Your task to perform on an android device: choose inbox layout in the gmail app Image 0: 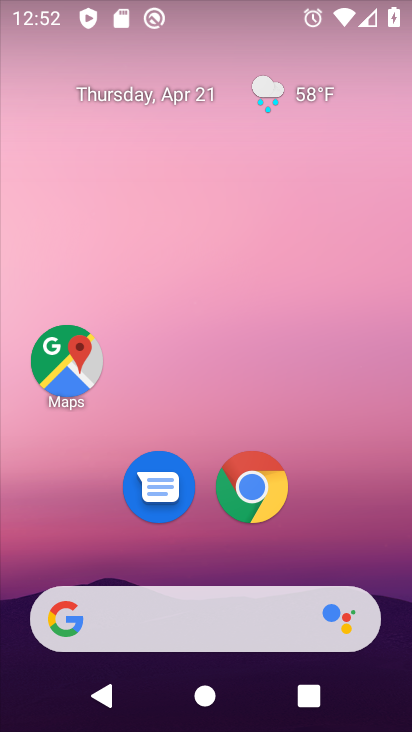
Step 0: drag from (388, 416) to (376, 12)
Your task to perform on an android device: choose inbox layout in the gmail app Image 1: 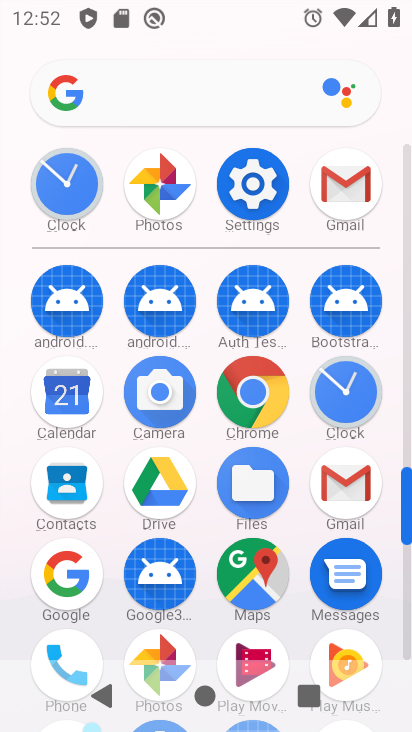
Step 1: click (350, 185)
Your task to perform on an android device: choose inbox layout in the gmail app Image 2: 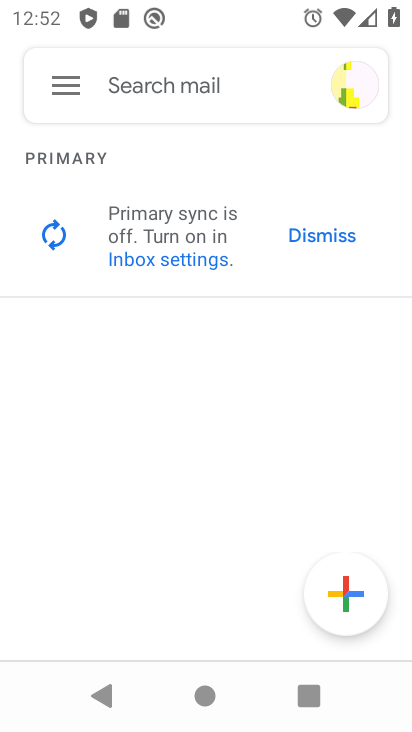
Step 2: click (60, 83)
Your task to perform on an android device: choose inbox layout in the gmail app Image 3: 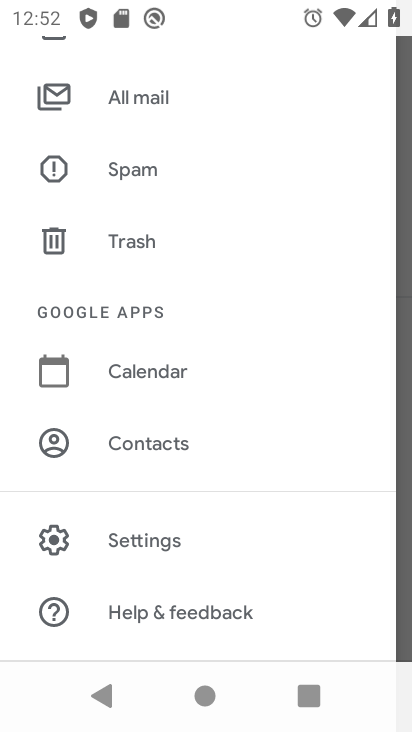
Step 3: drag from (200, 274) to (214, 157)
Your task to perform on an android device: choose inbox layout in the gmail app Image 4: 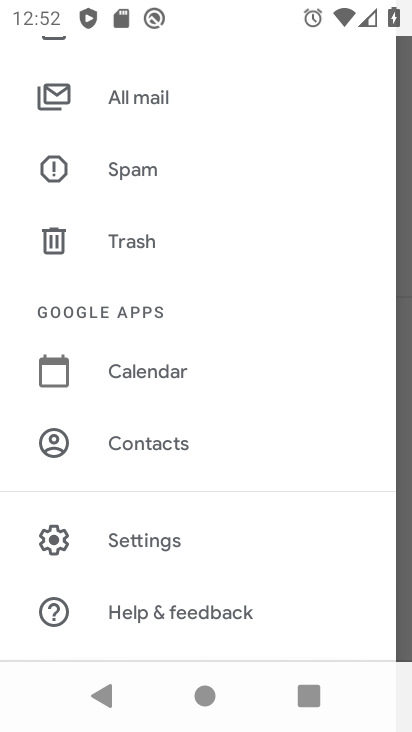
Step 4: click (134, 543)
Your task to perform on an android device: choose inbox layout in the gmail app Image 5: 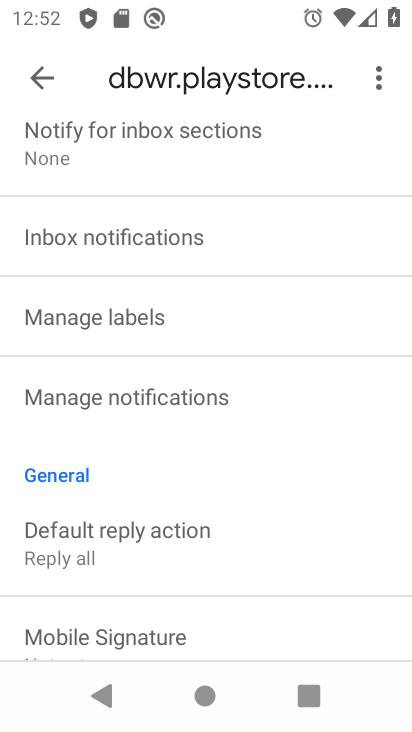
Step 5: drag from (238, 212) to (244, 580)
Your task to perform on an android device: choose inbox layout in the gmail app Image 6: 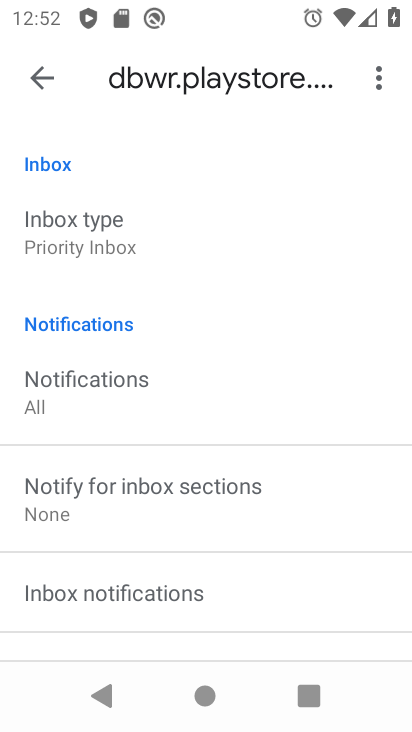
Step 6: click (65, 242)
Your task to perform on an android device: choose inbox layout in the gmail app Image 7: 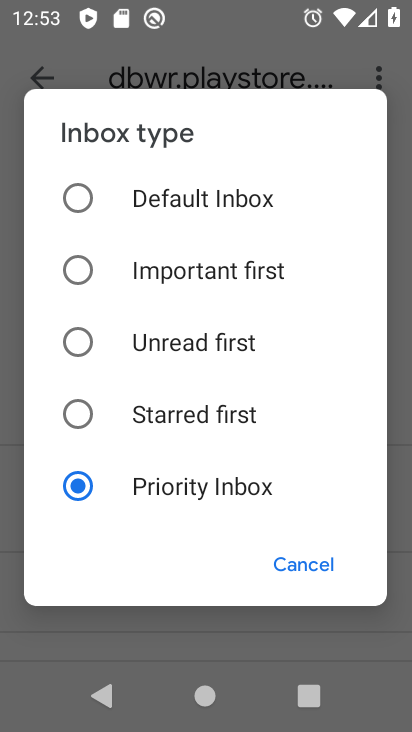
Step 7: click (83, 342)
Your task to perform on an android device: choose inbox layout in the gmail app Image 8: 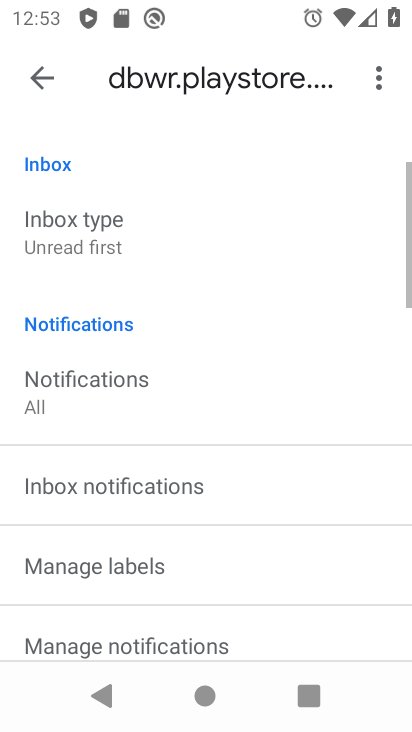
Step 8: task complete